Your task to perform on an android device: Open Yahoo.com Image 0: 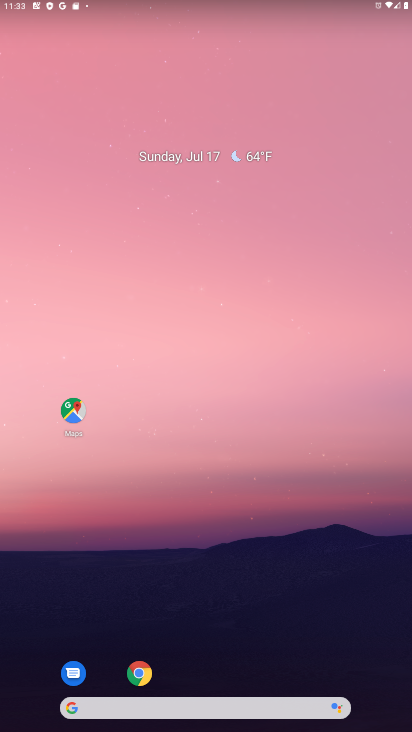
Step 0: click (139, 666)
Your task to perform on an android device: Open Yahoo.com Image 1: 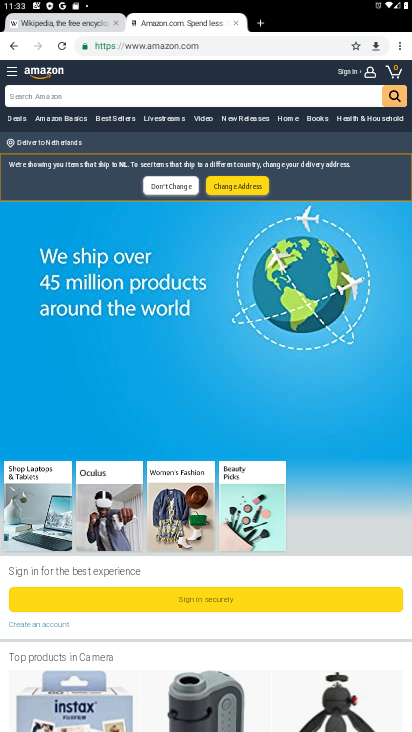
Step 1: click (259, 25)
Your task to perform on an android device: Open Yahoo.com Image 2: 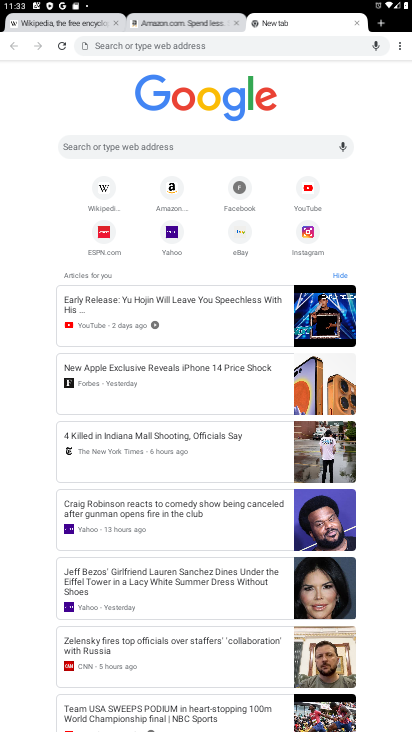
Step 2: click (171, 232)
Your task to perform on an android device: Open Yahoo.com Image 3: 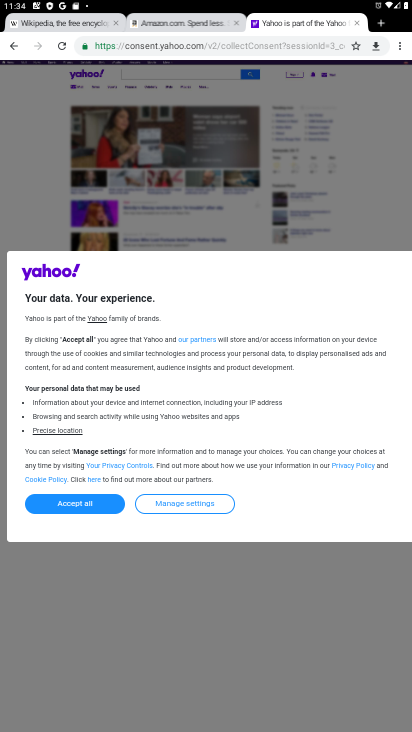
Step 3: task complete